Your task to perform on an android device: turn on bluetooth scan Image 0: 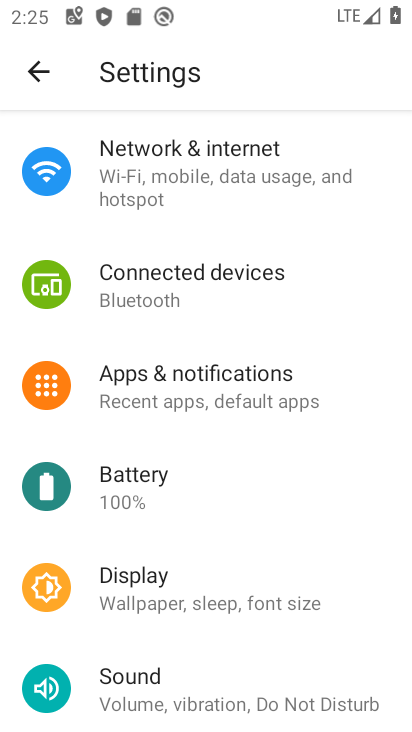
Step 0: press home button
Your task to perform on an android device: turn on bluetooth scan Image 1: 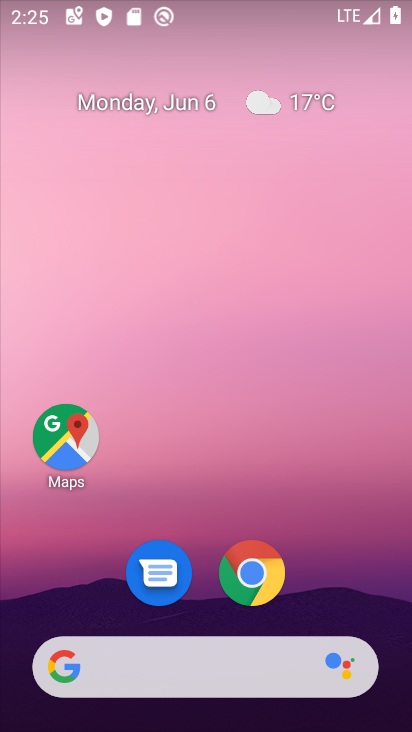
Step 1: drag from (339, 598) to (366, 222)
Your task to perform on an android device: turn on bluetooth scan Image 2: 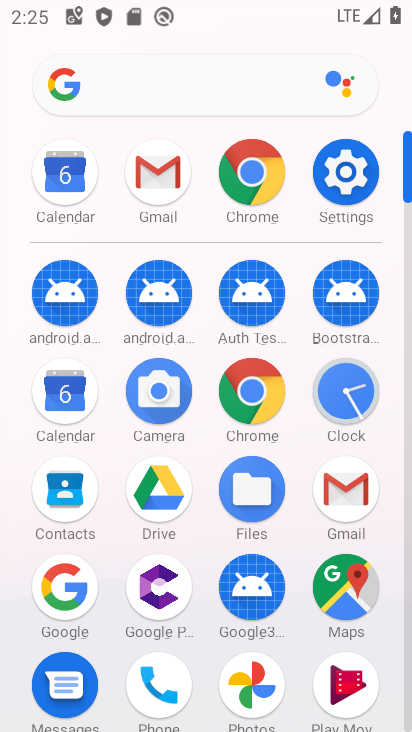
Step 2: click (366, 173)
Your task to perform on an android device: turn on bluetooth scan Image 3: 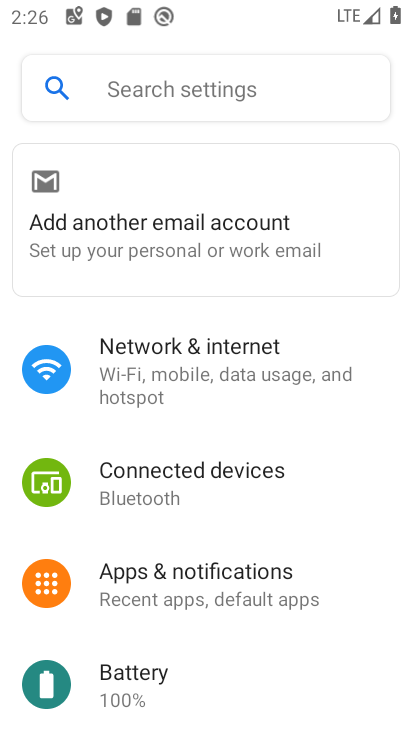
Step 3: drag from (325, 542) to (341, 371)
Your task to perform on an android device: turn on bluetooth scan Image 4: 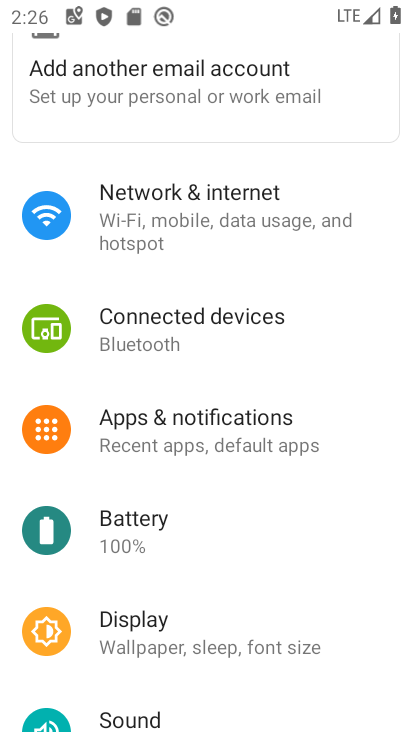
Step 4: drag from (363, 567) to (372, 396)
Your task to perform on an android device: turn on bluetooth scan Image 5: 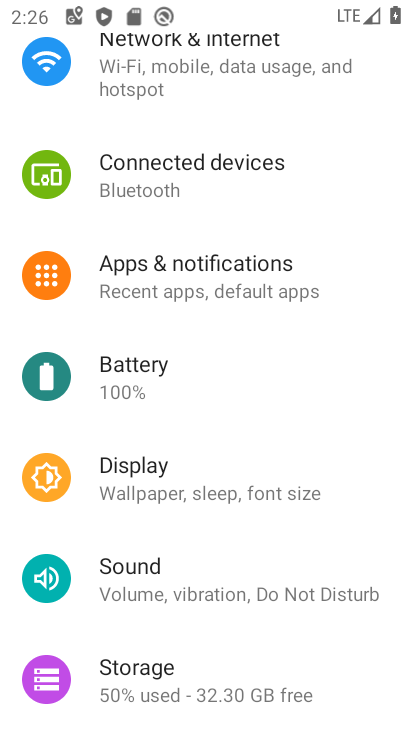
Step 5: drag from (359, 532) to (365, 397)
Your task to perform on an android device: turn on bluetooth scan Image 6: 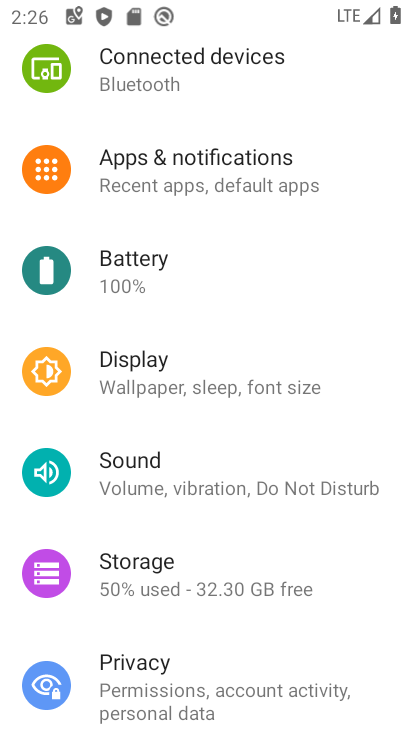
Step 6: drag from (346, 589) to (369, 380)
Your task to perform on an android device: turn on bluetooth scan Image 7: 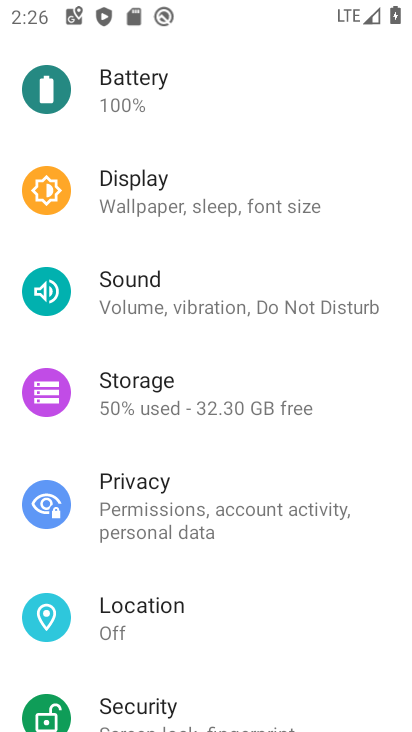
Step 7: drag from (359, 607) to (364, 404)
Your task to perform on an android device: turn on bluetooth scan Image 8: 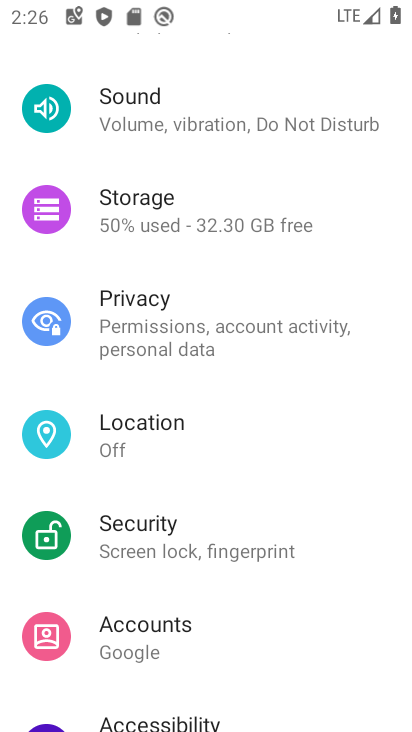
Step 8: click (171, 433)
Your task to perform on an android device: turn on bluetooth scan Image 9: 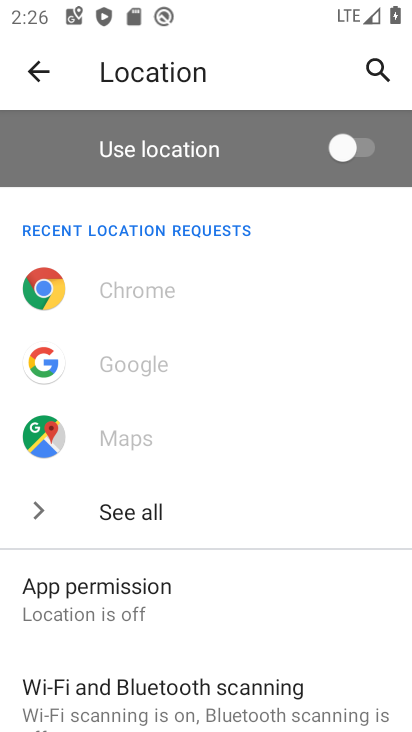
Step 9: click (227, 704)
Your task to perform on an android device: turn on bluetooth scan Image 10: 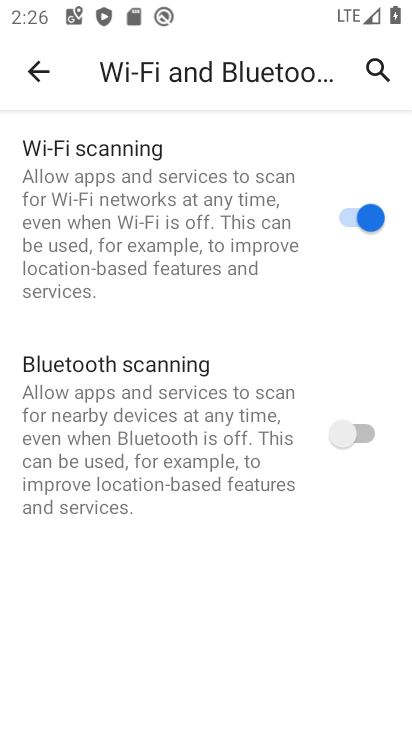
Step 10: click (358, 436)
Your task to perform on an android device: turn on bluetooth scan Image 11: 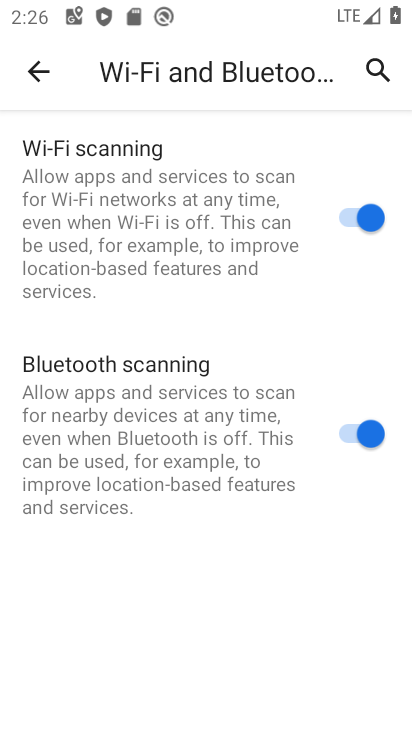
Step 11: task complete